Your task to perform on an android device: turn on improve location accuracy Image 0: 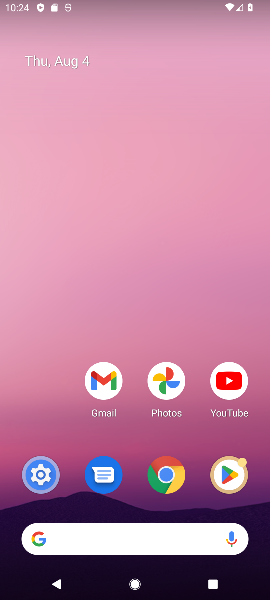
Step 0: click (46, 468)
Your task to perform on an android device: turn on improve location accuracy Image 1: 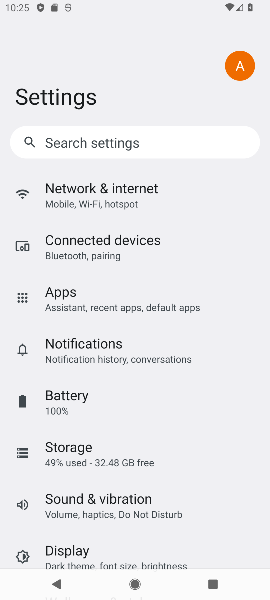
Step 1: drag from (185, 488) to (137, 187)
Your task to perform on an android device: turn on improve location accuracy Image 2: 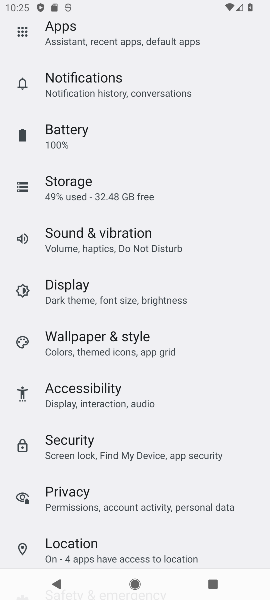
Step 2: click (86, 544)
Your task to perform on an android device: turn on improve location accuracy Image 3: 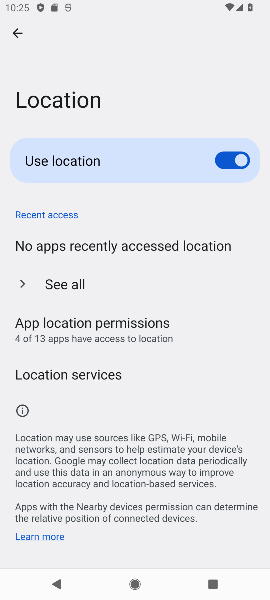
Step 3: click (112, 372)
Your task to perform on an android device: turn on improve location accuracy Image 4: 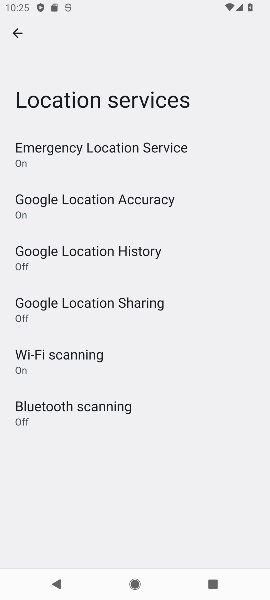
Step 4: click (155, 198)
Your task to perform on an android device: turn on improve location accuracy Image 5: 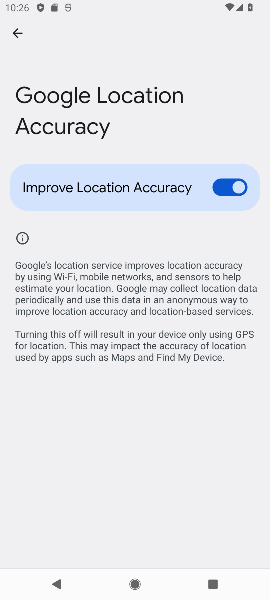
Step 5: task complete